Your task to perform on an android device: Open Reddit.com Image 0: 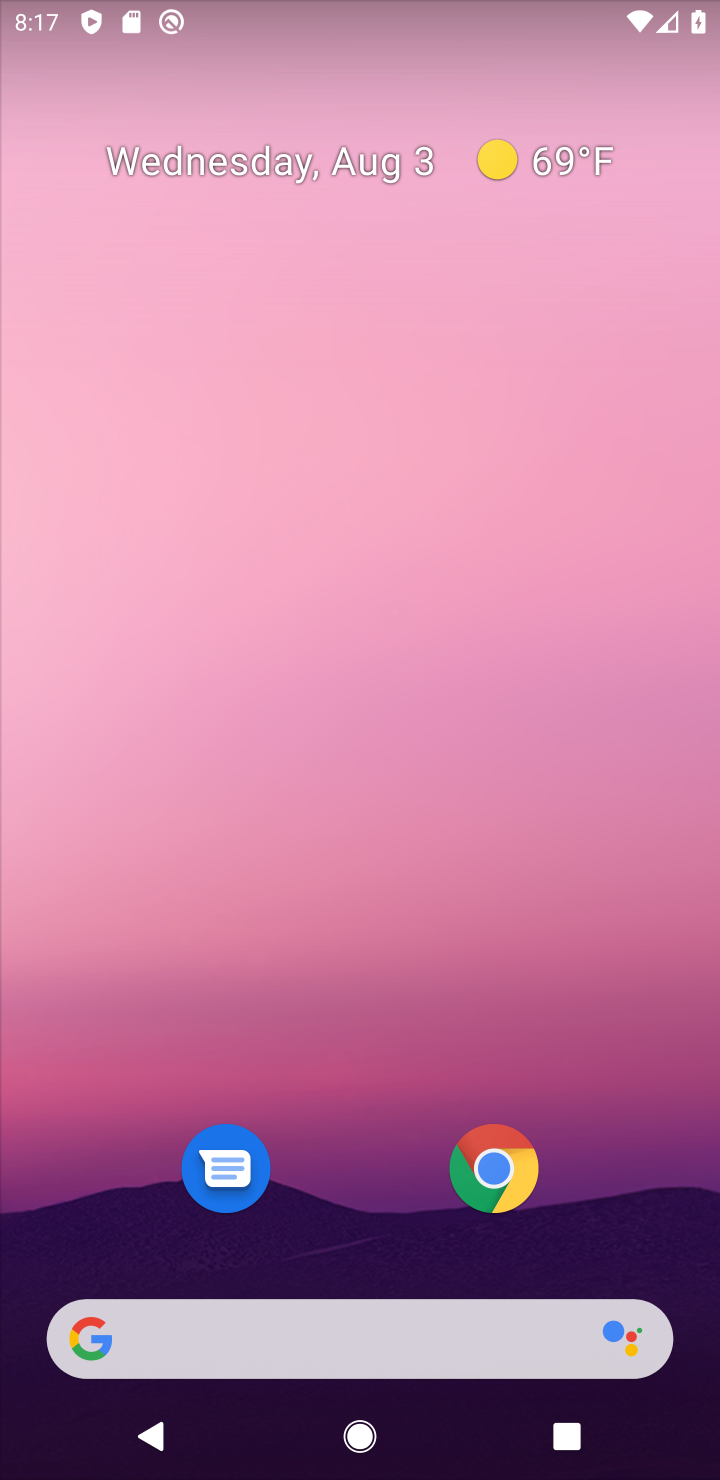
Step 0: drag from (343, 609) to (343, 64)
Your task to perform on an android device: Open Reddit.com Image 1: 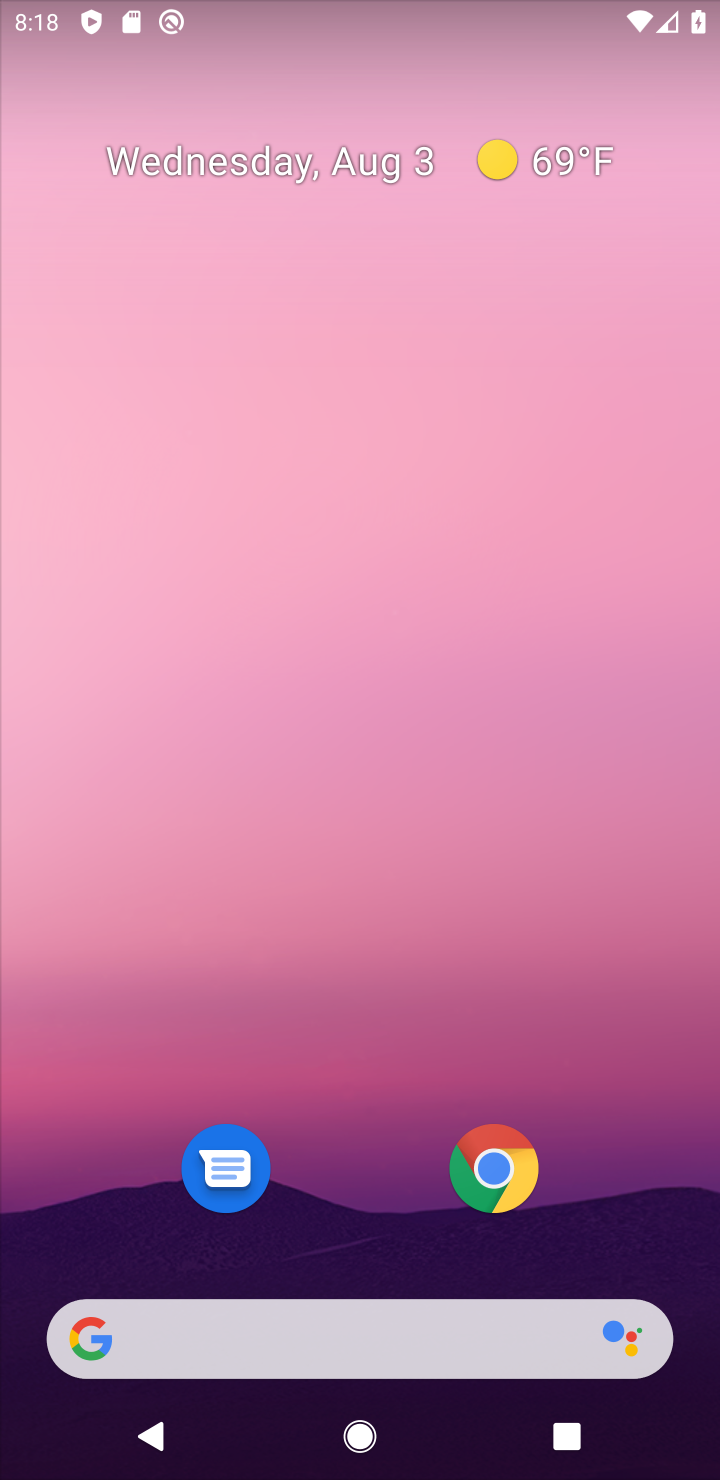
Step 1: click (496, 1179)
Your task to perform on an android device: Open Reddit.com Image 2: 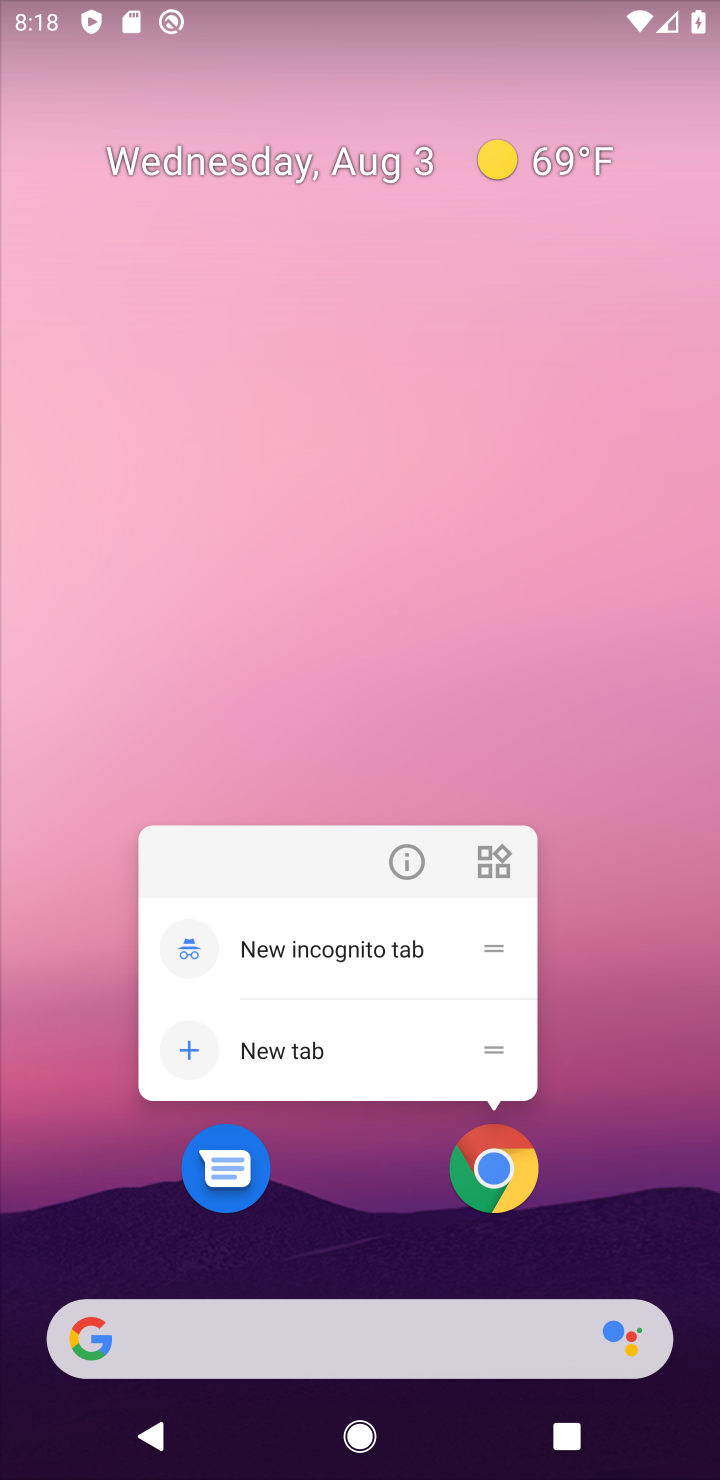
Step 2: click (520, 1155)
Your task to perform on an android device: Open Reddit.com Image 3: 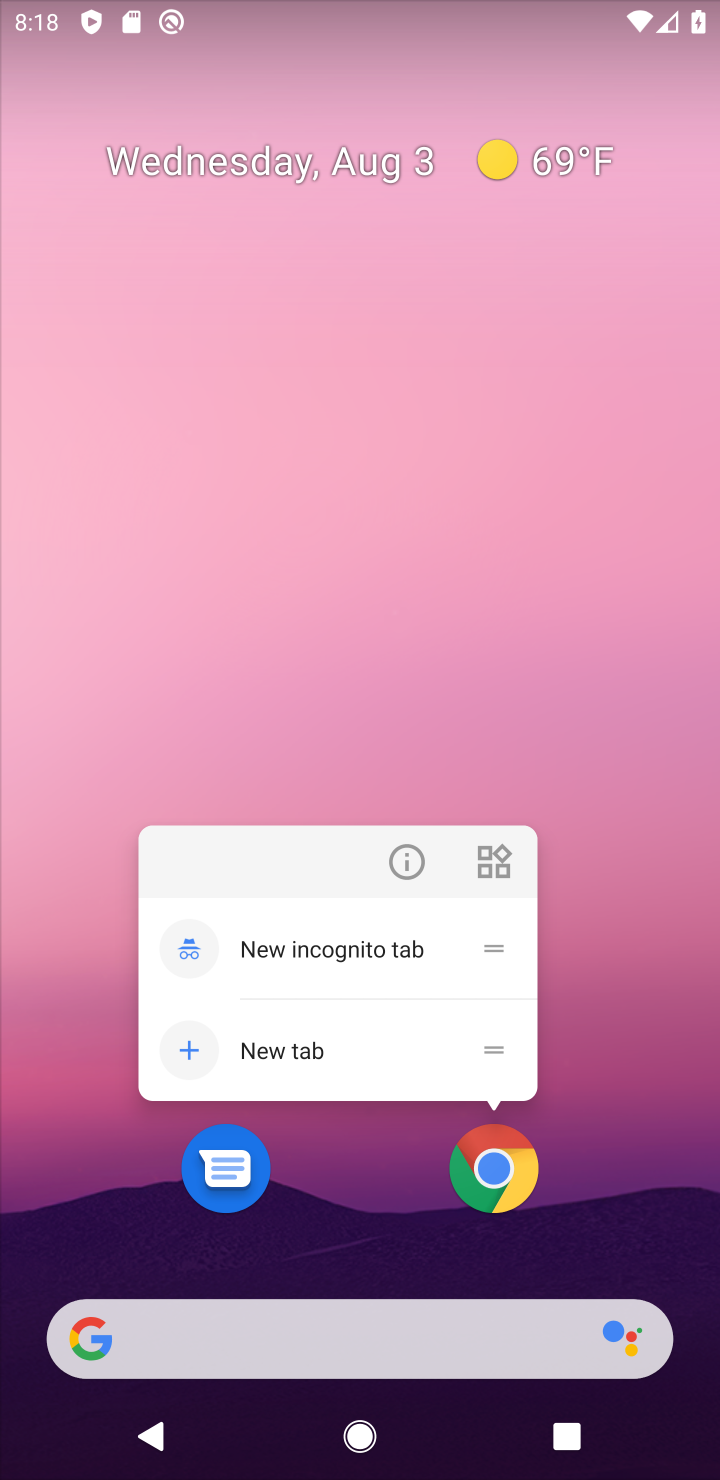
Step 3: click (478, 1194)
Your task to perform on an android device: Open Reddit.com Image 4: 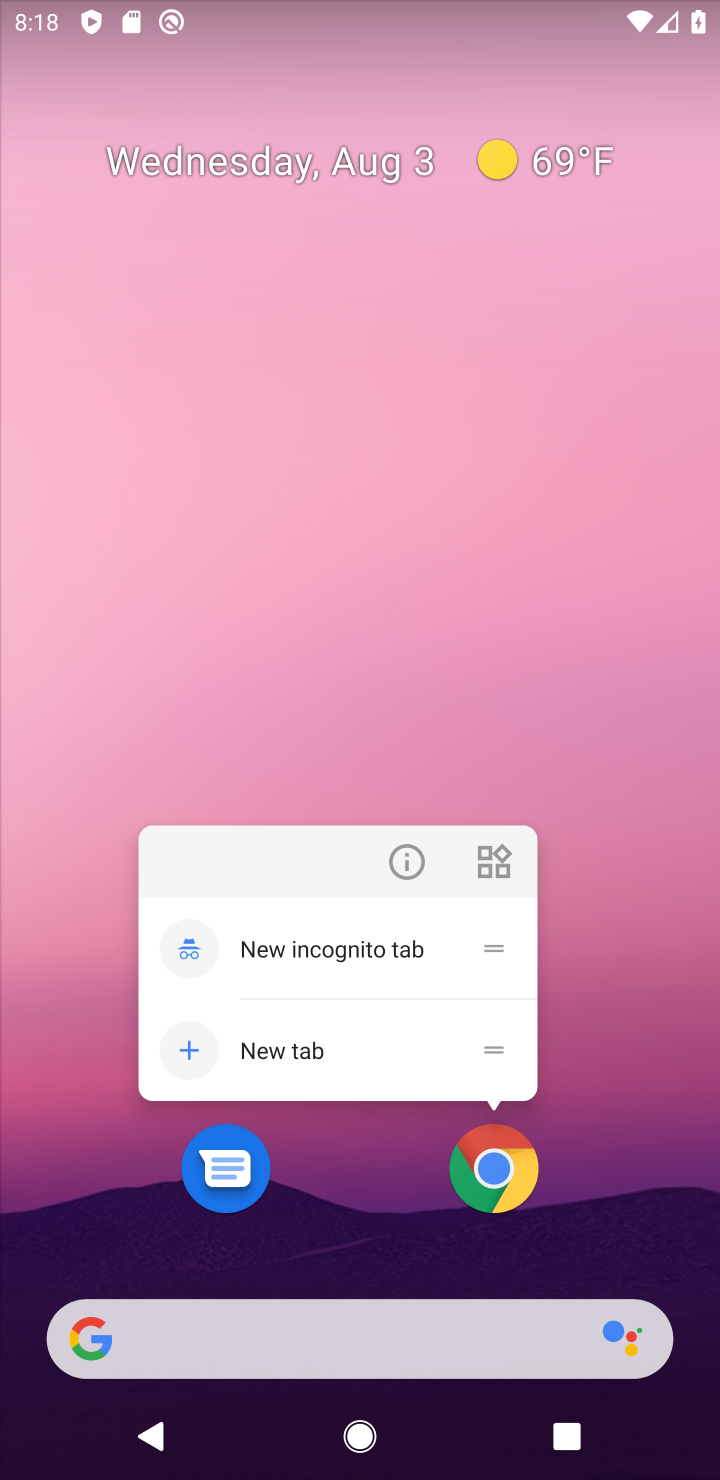
Step 4: click (508, 1170)
Your task to perform on an android device: Open Reddit.com Image 5: 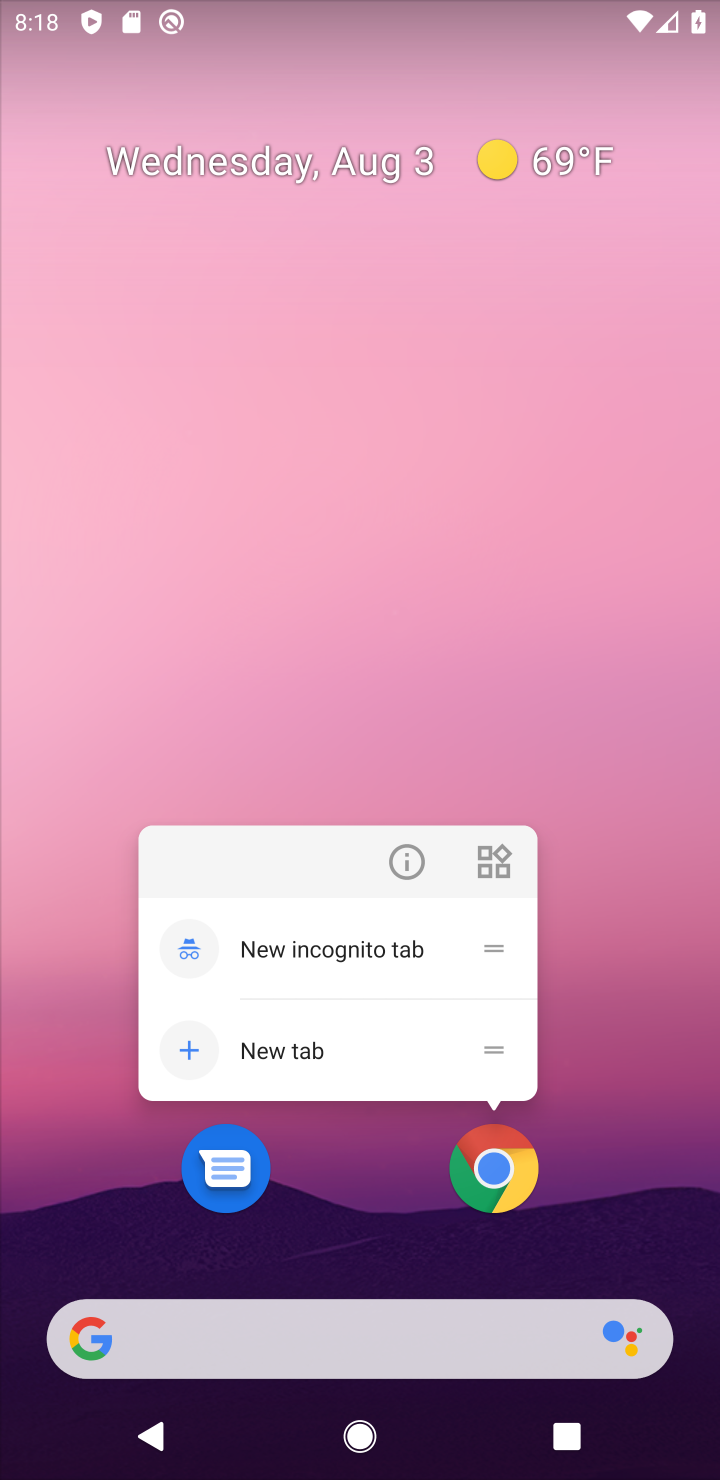
Step 5: click (515, 1170)
Your task to perform on an android device: Open Reddit.com Image 6: 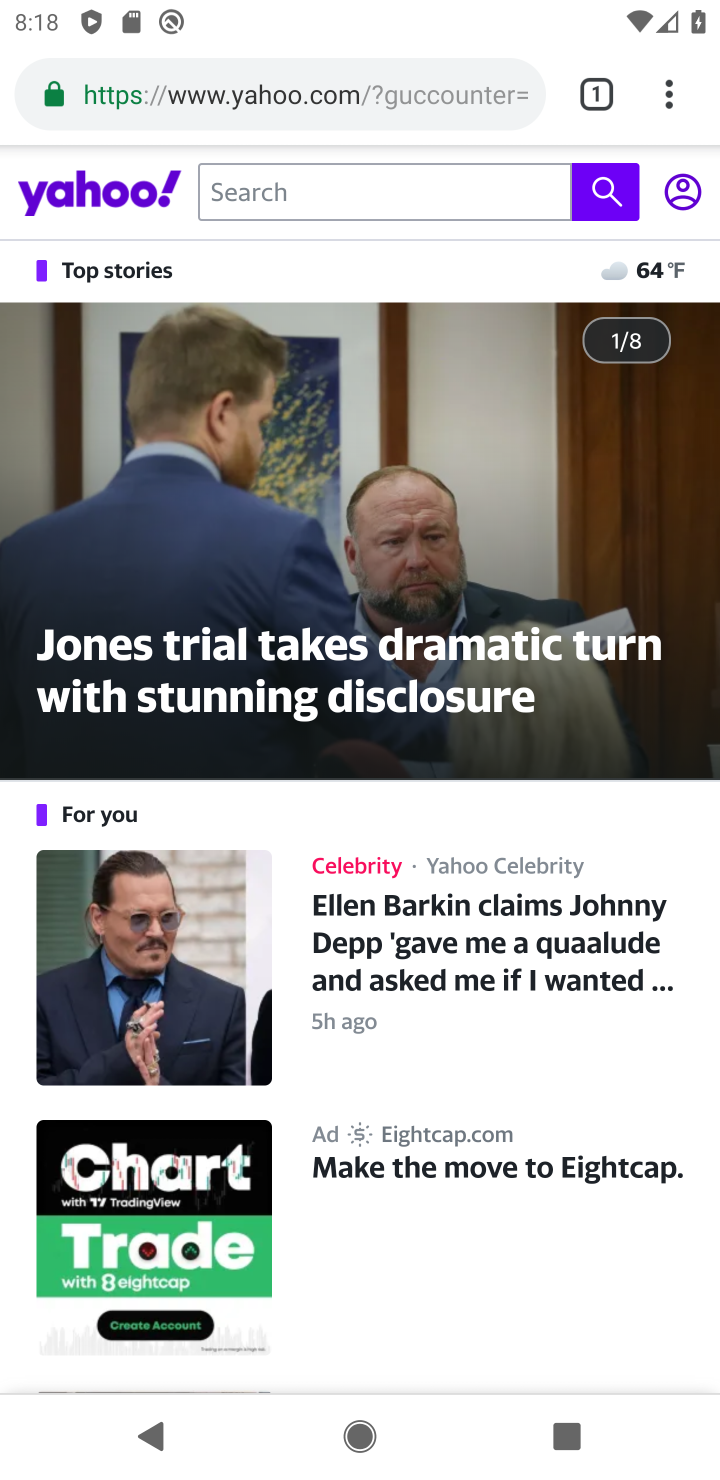
Step 6: click (577, 85)
Your task to perform on an android device: Open Reddit.com Image 7: 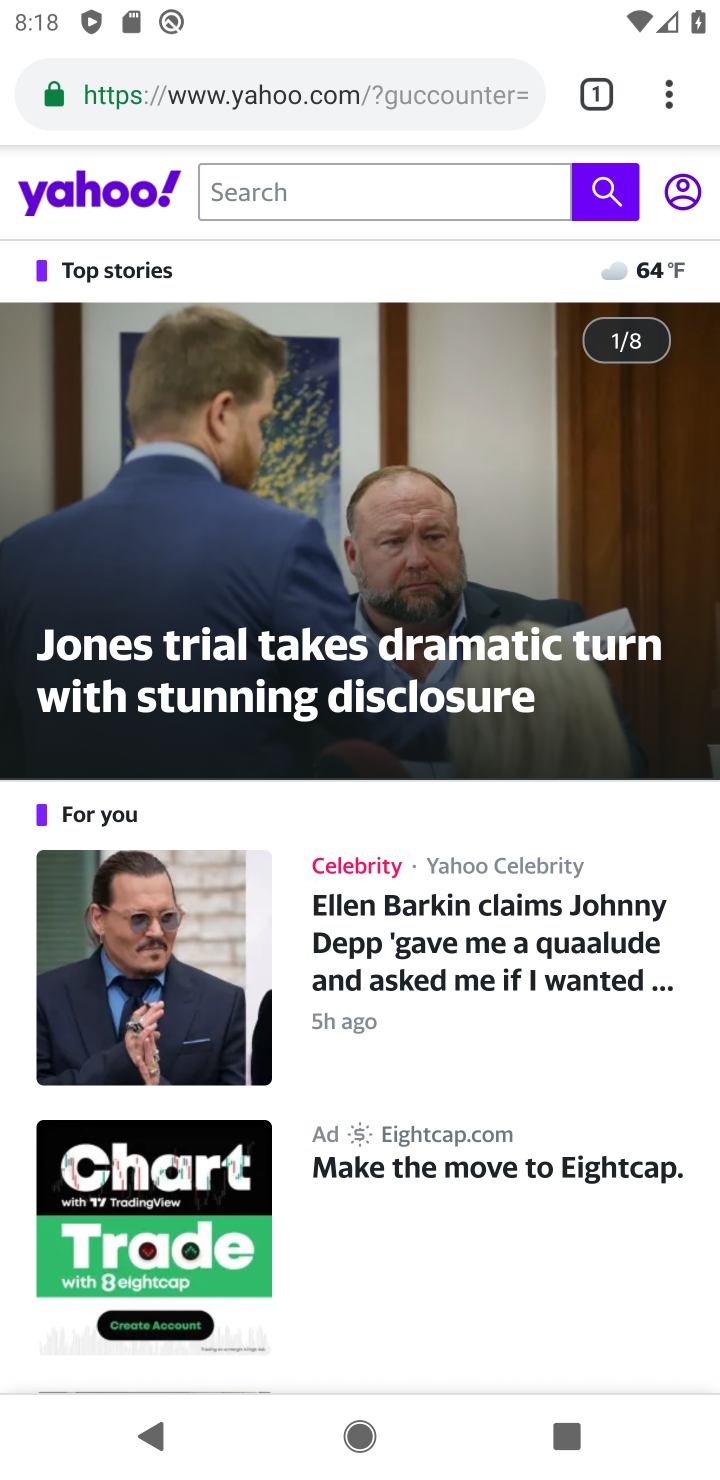
Step 7: click (577, 85)
Your task to perform on an android device: Open Reddit.com Image 8: 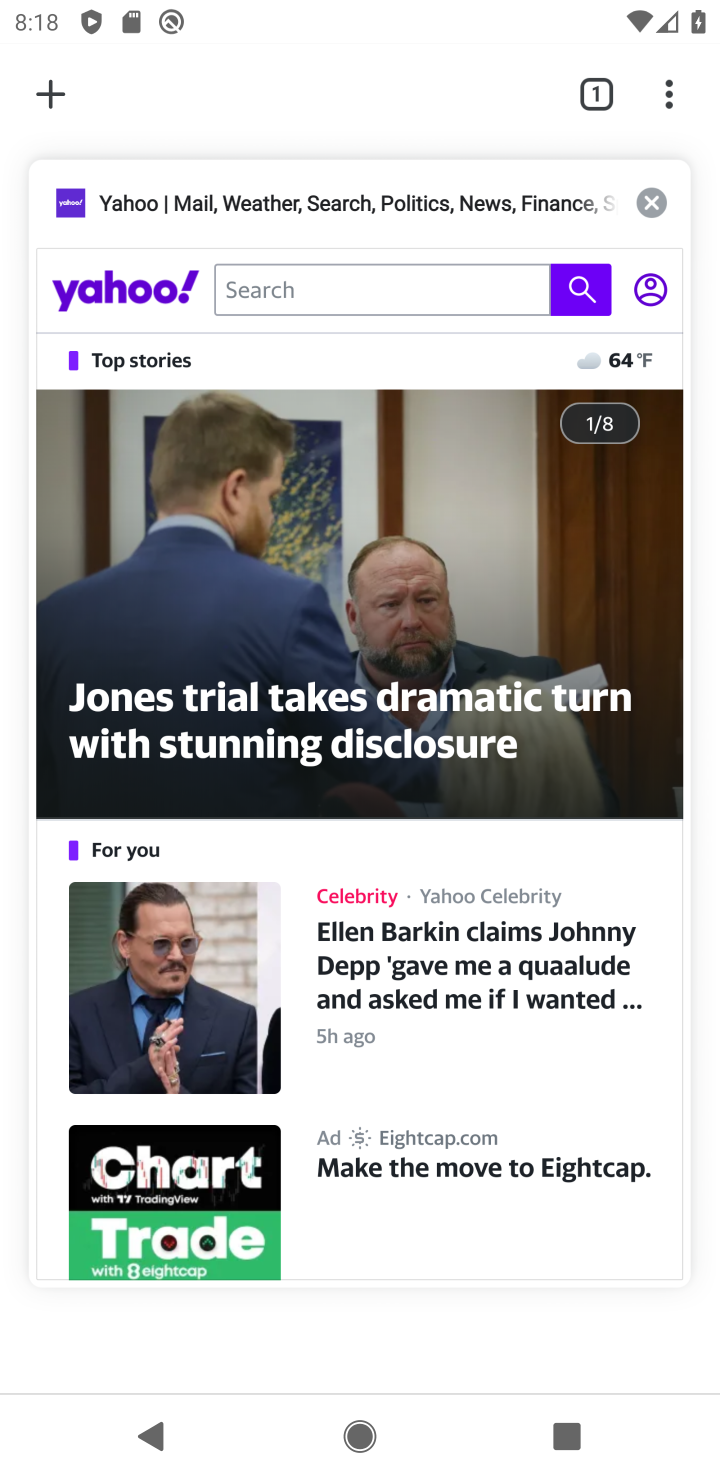
Step 8: click (44, 94)
Your task to perform on an android device: Open Reddit.com Image 9: 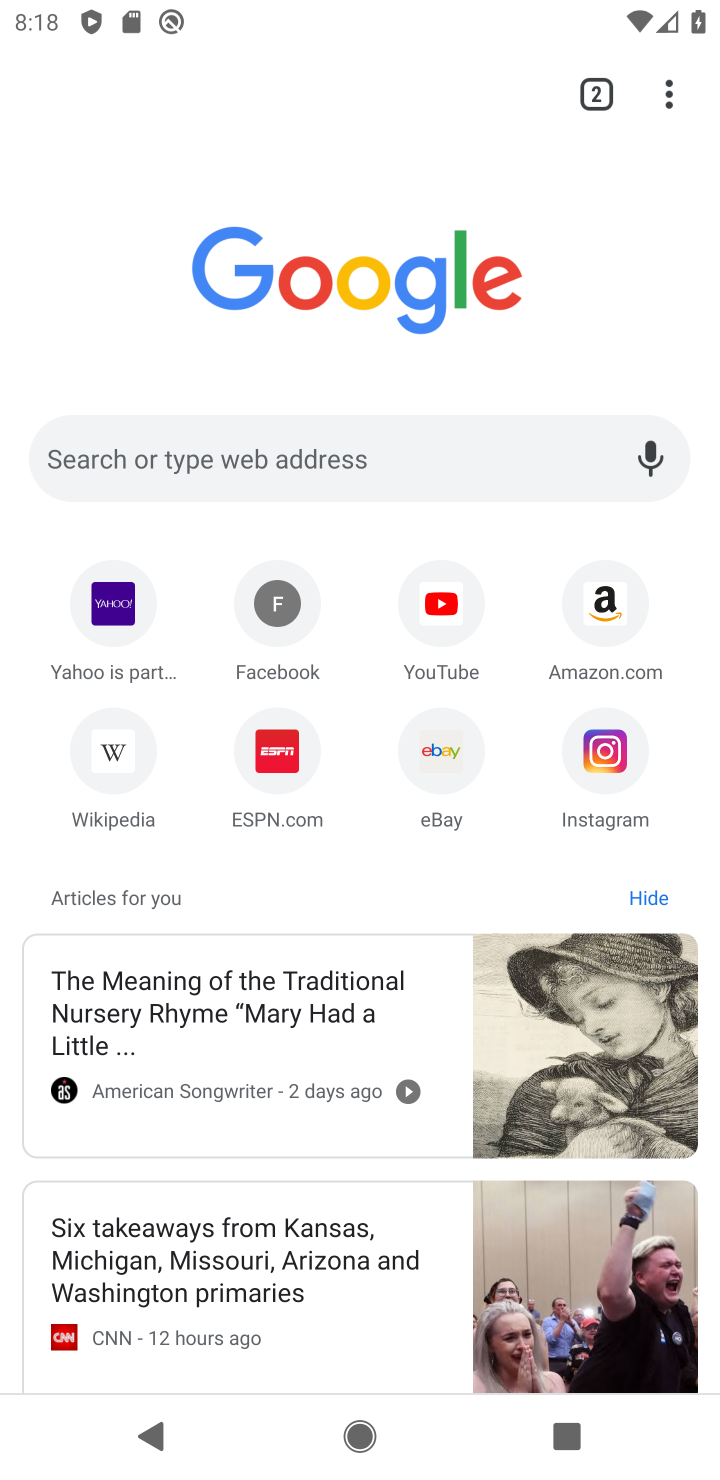
Step 9: click (328, 461)
Your task to perform on an android device: Open Reddit.com Image 10: 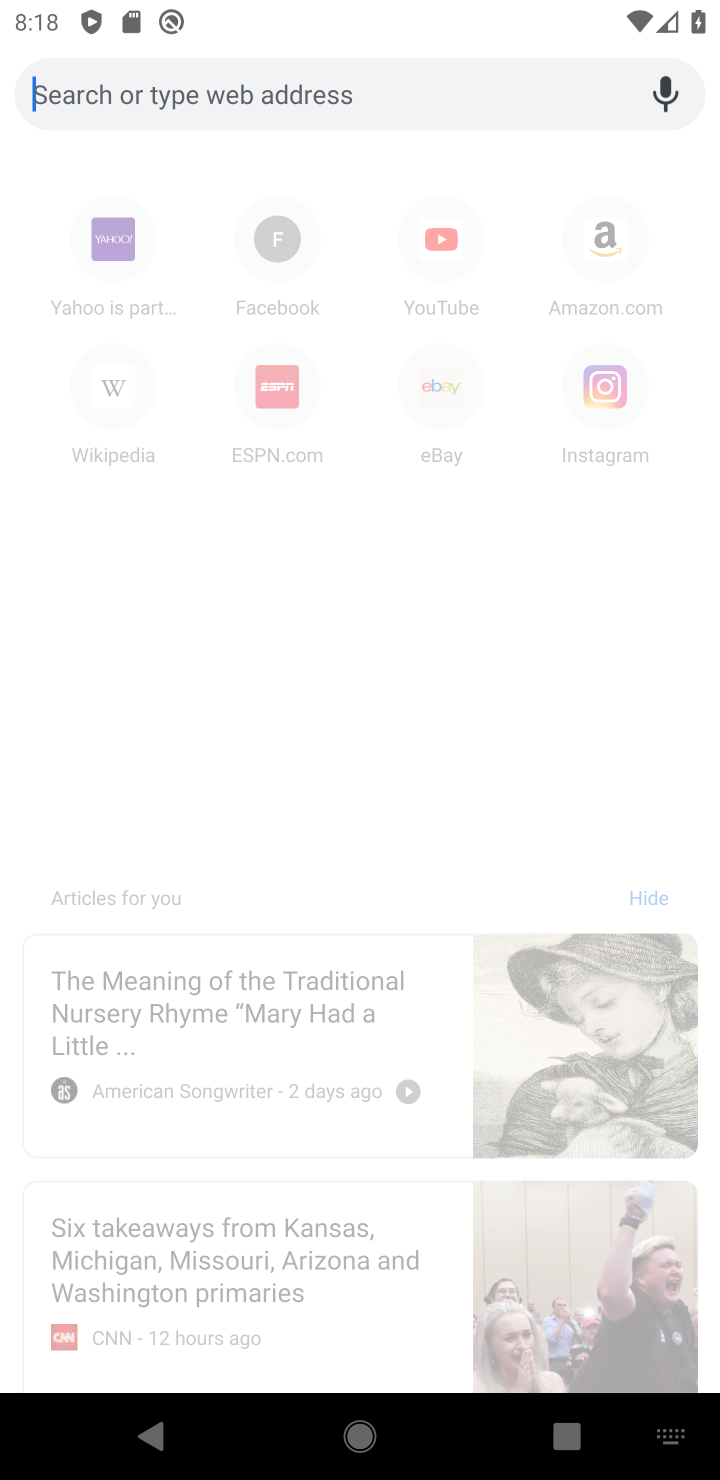
Step 10: type "Reddit.com"
Your task to perform on an android device: Open Reddit.com Image 11: 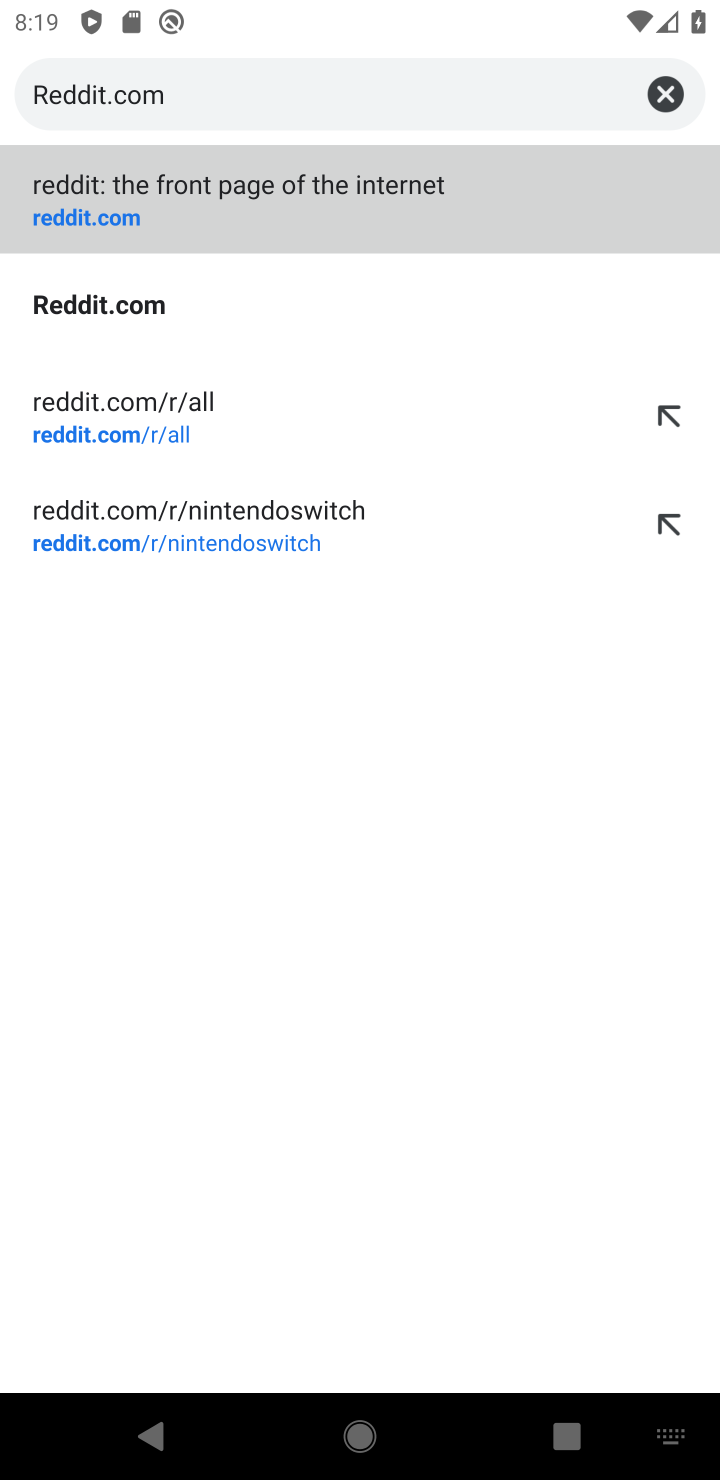
Step 11: click (44, 217)
Your task to perform on an android device: Open Reddit.com Image 12: 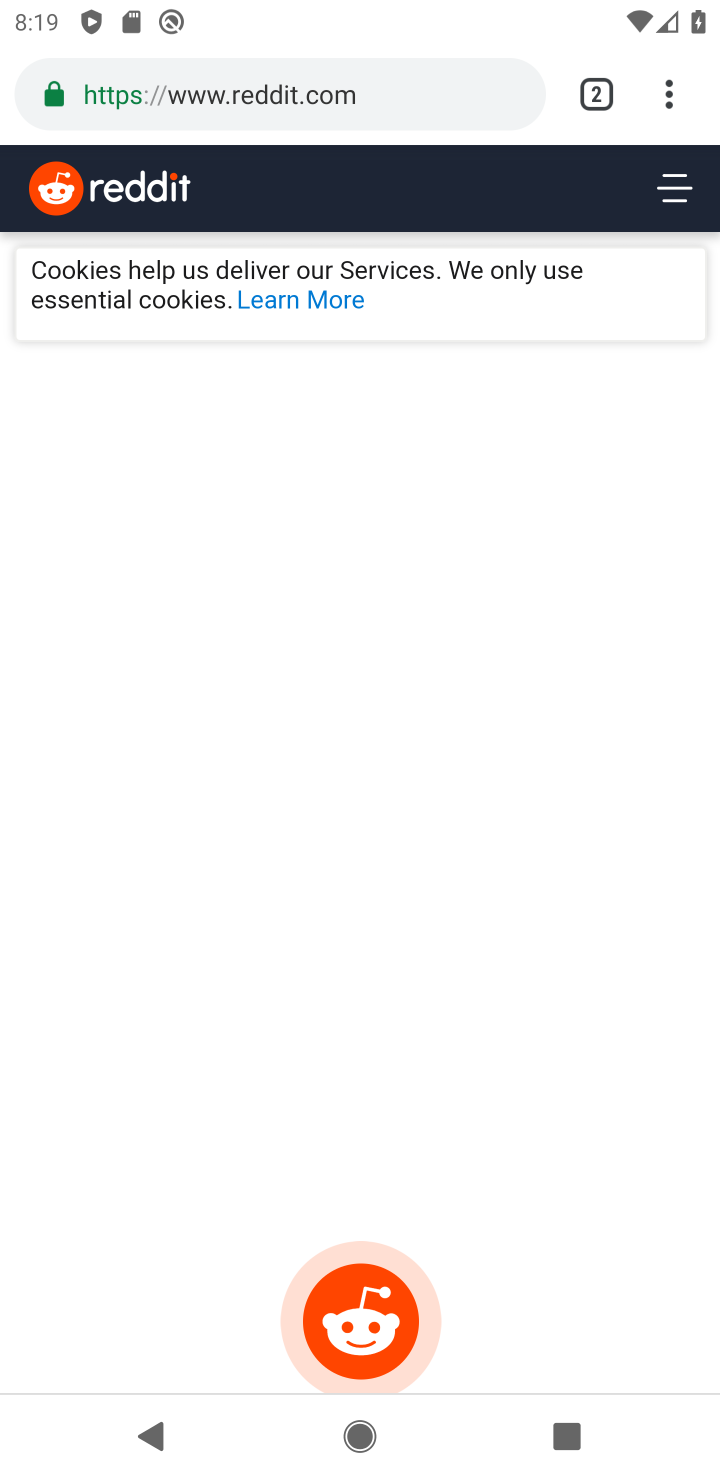
Step 12: task complete